Your task to perform on an android device: Go to network settings Image 0: 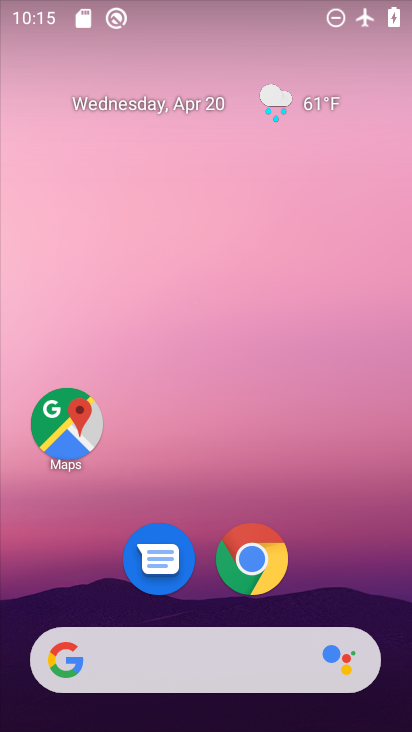
Step 0: drag from (388, 607) to (326, 142)
Your task to perform on an android device: Go to network settings Image 1: 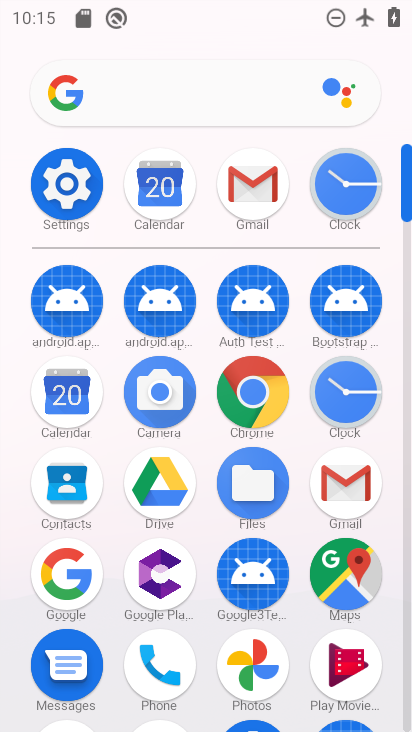
Step 1: click (407, 709)
Your task to perform on an android device: Go to network settings Image 2: 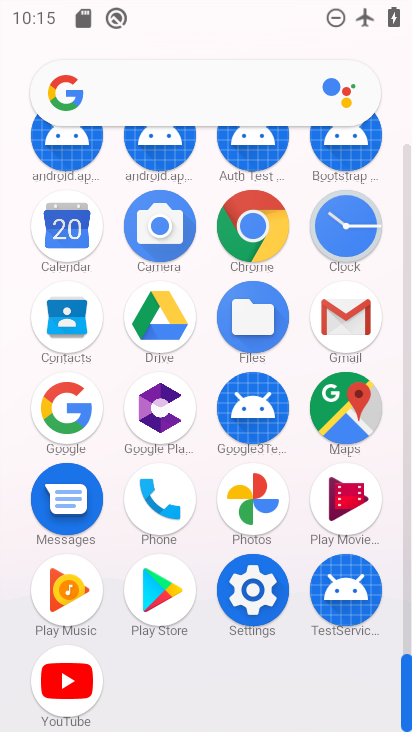
Step 2: click (252, 586)
Your task to perform on an android device: Go to network settings Image 3: 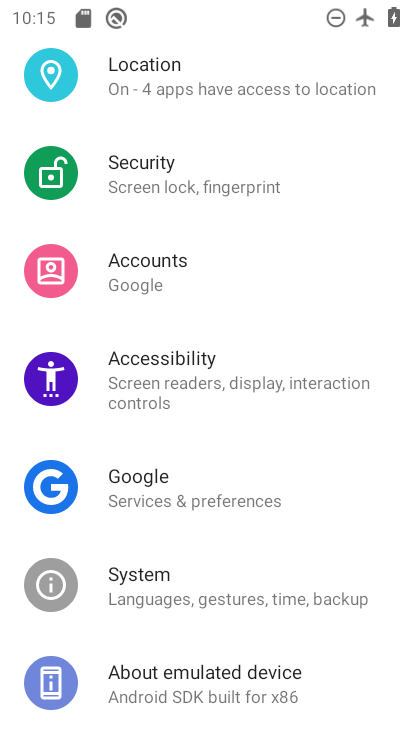
Step 3: drag from (325, 232) to (307, 506)
Your task to perform on an android device: Go to network settings Image 4: 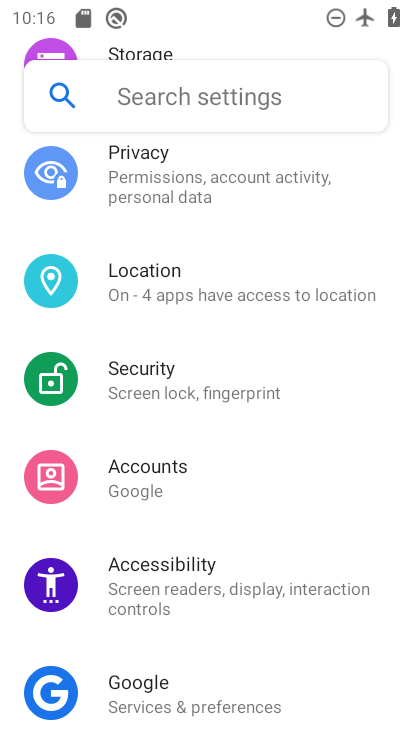
Step 4: drag from (341, 244) to (315, 434)
Your task to perform on an android device: Go to network settings Image 5: 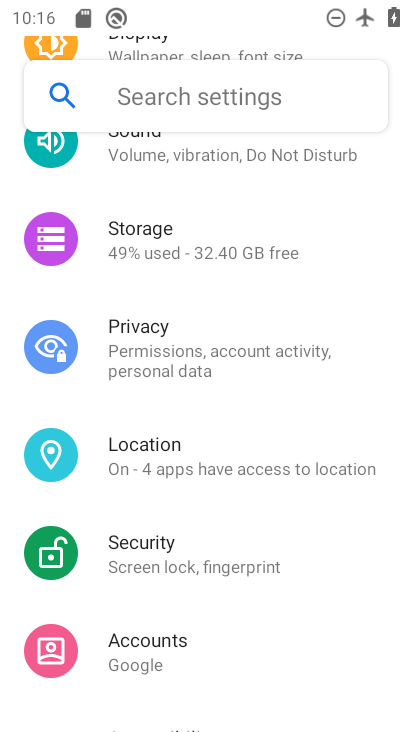
Step 5: drag from (328, 215) to (318, 385)
Your task to perform on an android device: Go to network settings Image 6: 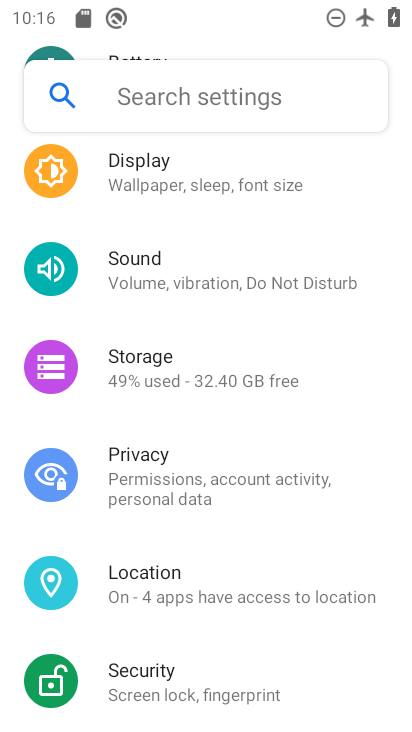
Step 6: drag from (339, 181) to (331, 414)
Your task to perform on an android device: Go to network settings Image 7: 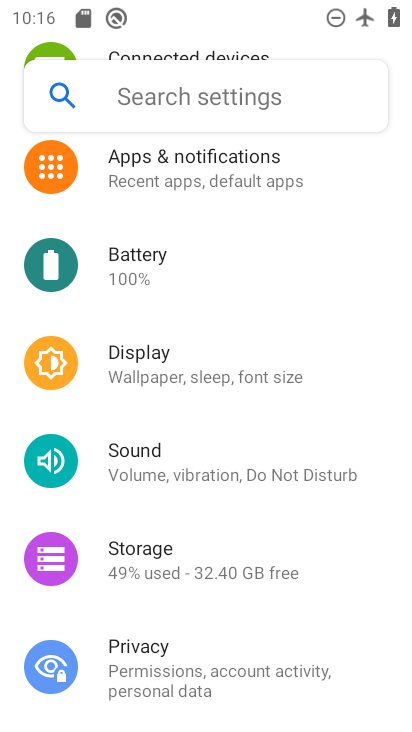
Step 7: drag from (338, 211) to (324, 393)
Your task to perform on an android device: Go to network settings Image 8: 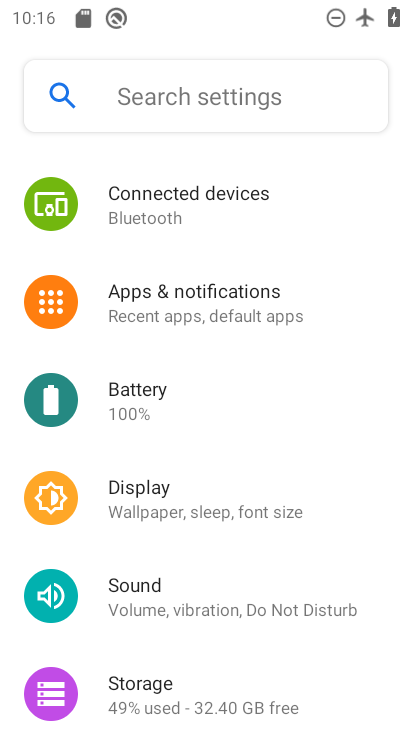
Step 8: drag from (313, 269) to (303, 430)
Your task to perform on an android device: Go to network settings Image 9: 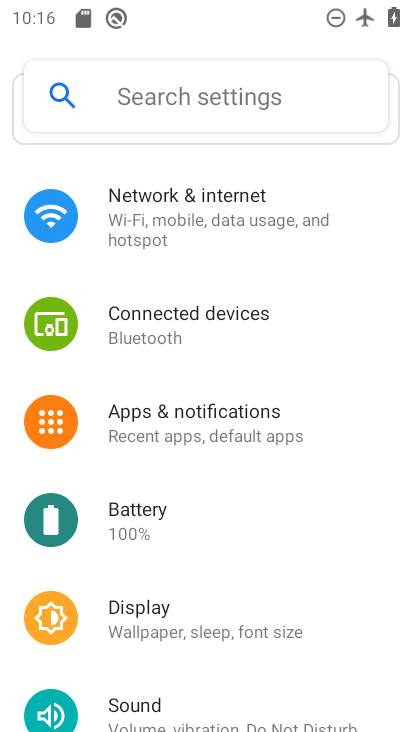
Step 9: click (121, 201)
Your task to perform on an android device: Go to network settings Image 10: 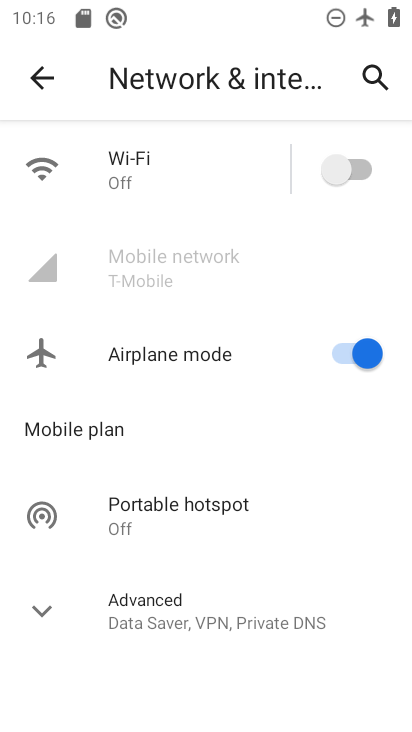
Step 10: click (122, 174)
Your task to perform on an android device: Go to network settings Image 11: 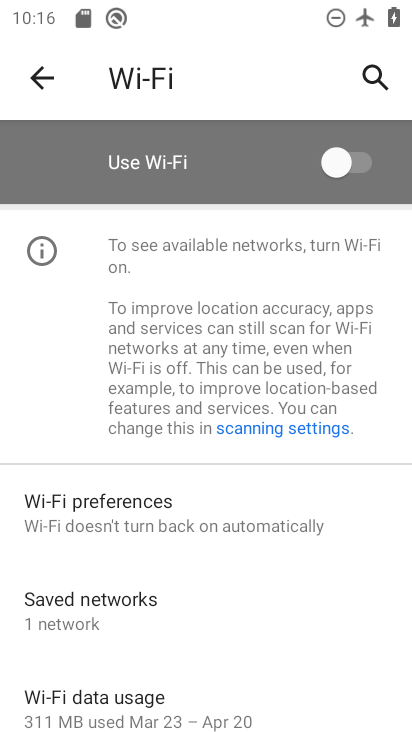
Step 11: task complete